Your task to perform on an android device: change notification settings in the gmail app Image 0: 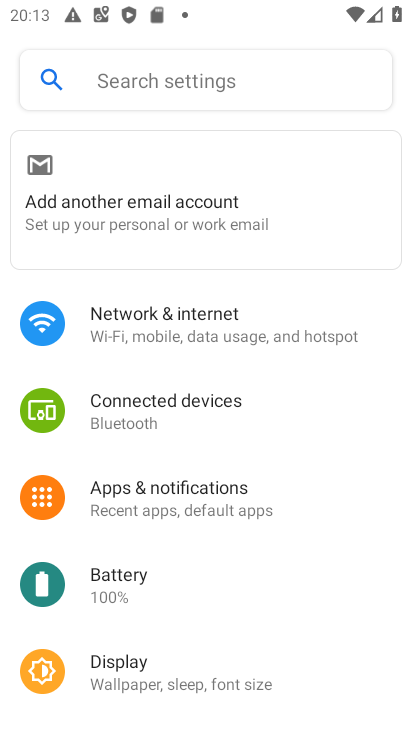
Step 0: press home button
Your task to perform on an android device: change notification settings in the gmail app Image 1: 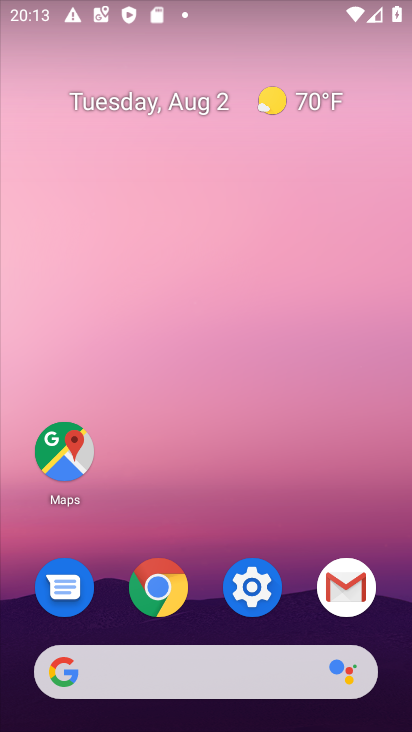
Step 1: click (246, 601)
Your task to perform on an android device: change notification settings in the gmail app Image 2: 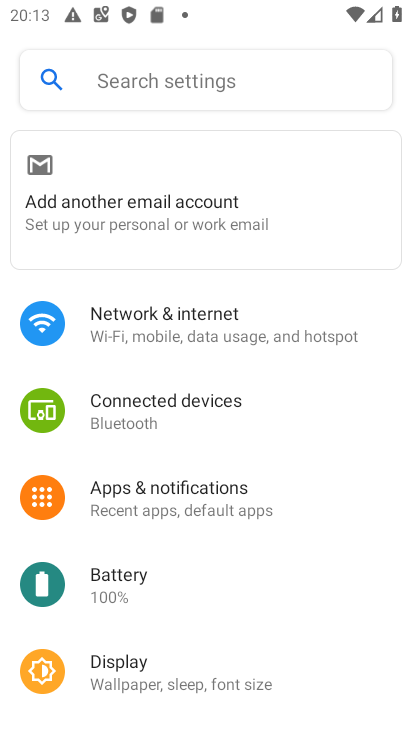
Step 2: click (156, 90)
Your task to perform on an android device: change notification settings in the gmail app Image 3: 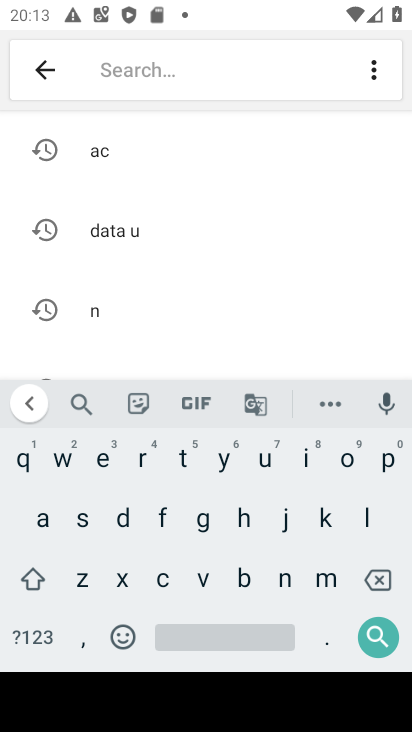
Step 3: click (286, 575)
Your task to perform on an android device: change notification settings in the gmail app Image 4: 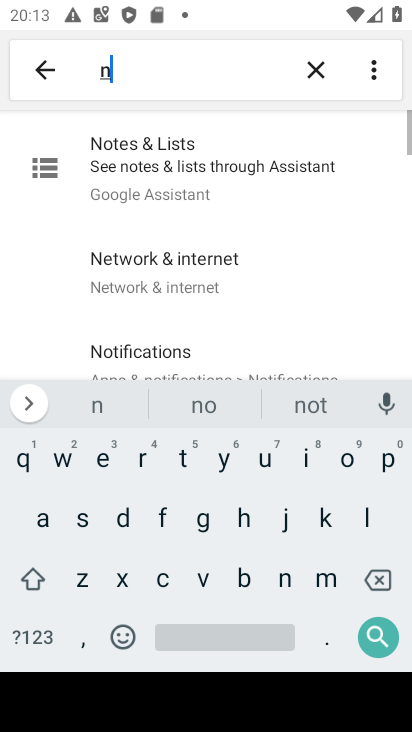
Step 4: click (344, 452)
Your task to perform on an android device: change notification settings in the gmail app Image 5: 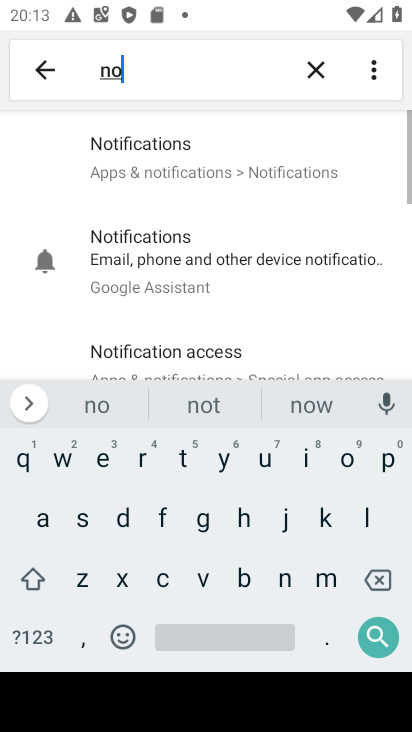
Step 5: click (170, 164)
Your task to perform on an android device: change notification settings in the gmail app Image 6: 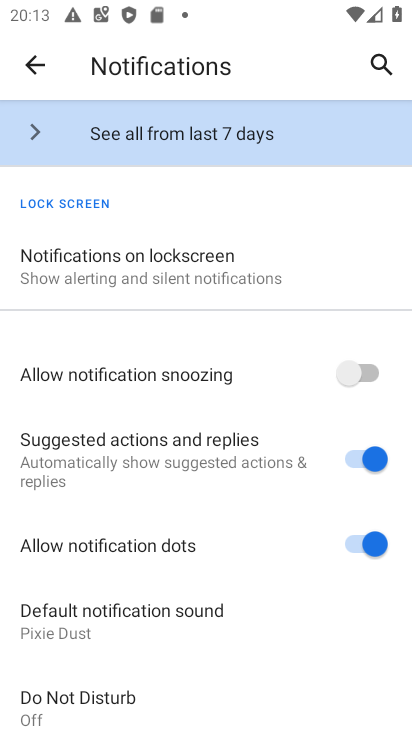
Step 6: click (103, 269)
Your task to perform on an android device: change notification settings in the gmail app Image 7: 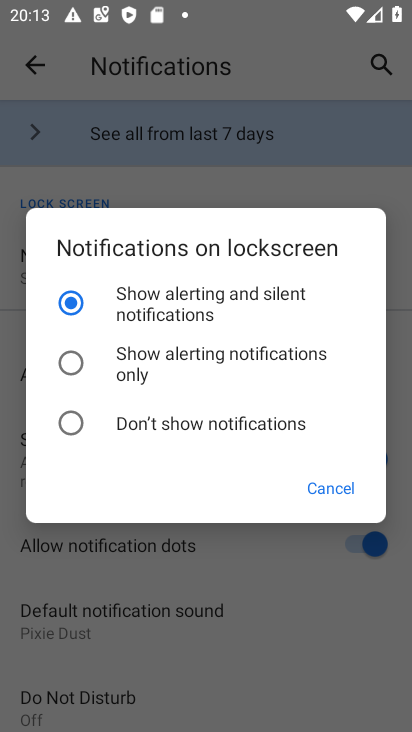
Step 7: click (146, 348)
Your task to perform on an android device: change notification settings in the gmail app Image 8: 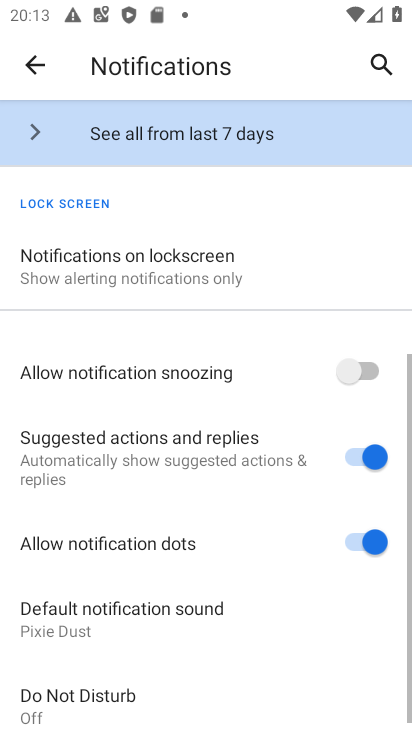
Step 8: click (132, 279)
Your task to perform on an android device: change notification settings in the gmail app Image 9: 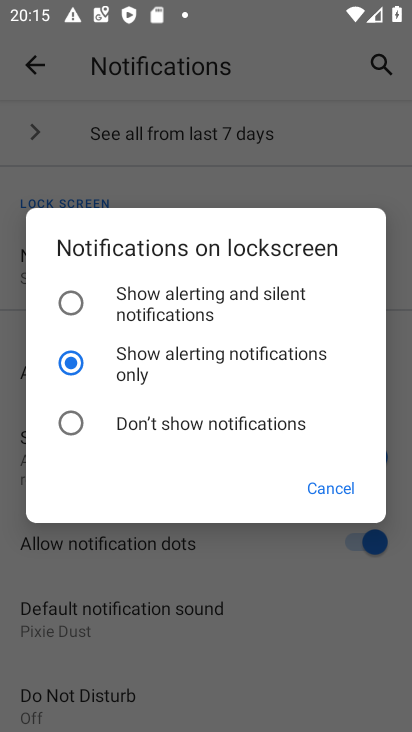
Step 9: task complete